Your task to perform on an android device: Open Yahoo.com Image 0: 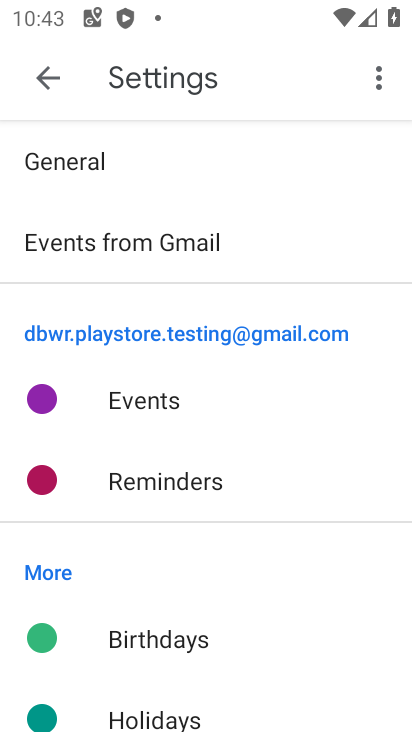
Step 0: press home button
Your task to perform on an android device: Open Yahoo.com Image 1: 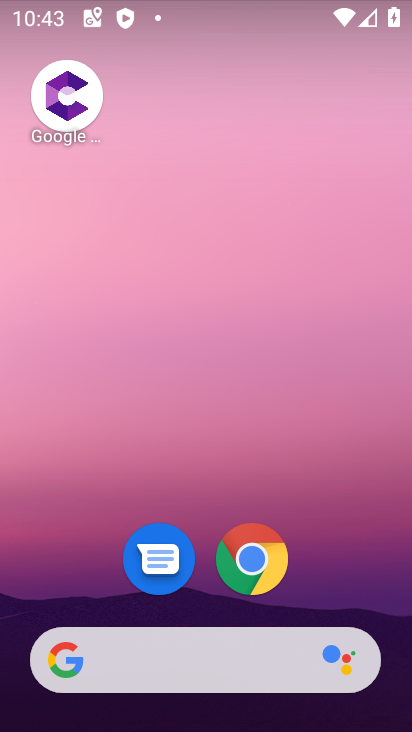
Step 1: click (254, 567)
Your task to perform on an android device: Open Yahoo.com Image 2: 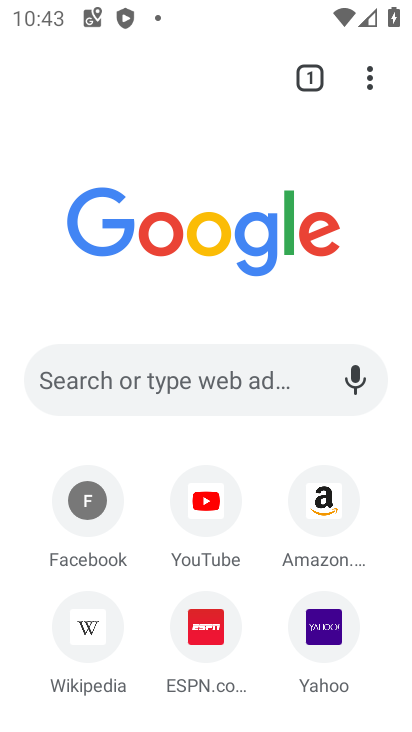
Step 2: click (327, 638)
Your task to perform on an android device: Open Yahoo.com Image 3: 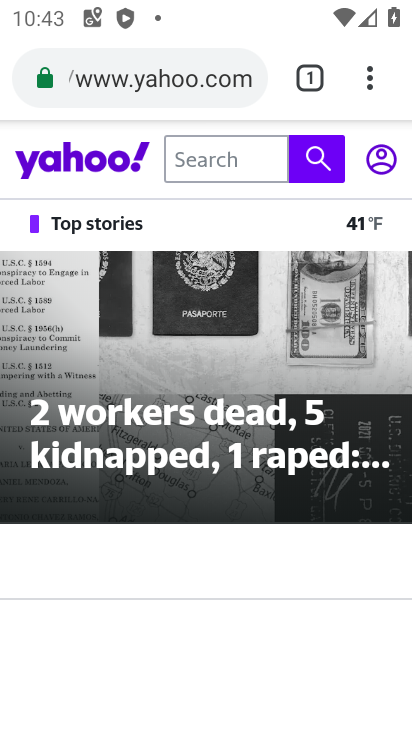
Step 3: task complete